Your task to perform on an android device: check android version Image 0: 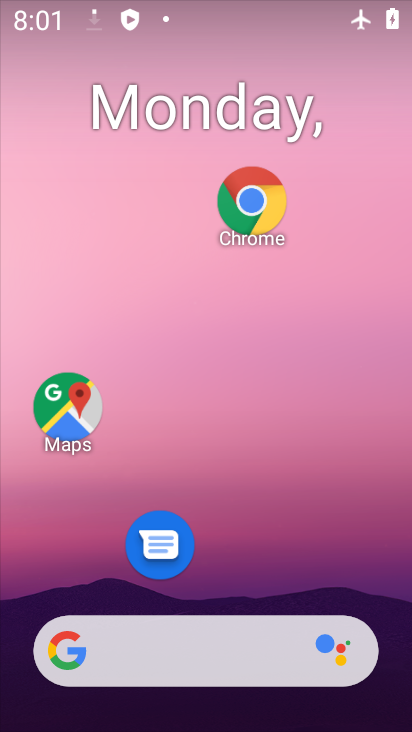
Step 0: drag from (267, 593) to (237, 101)
Your task to perform on an android device: check android version Image 1: 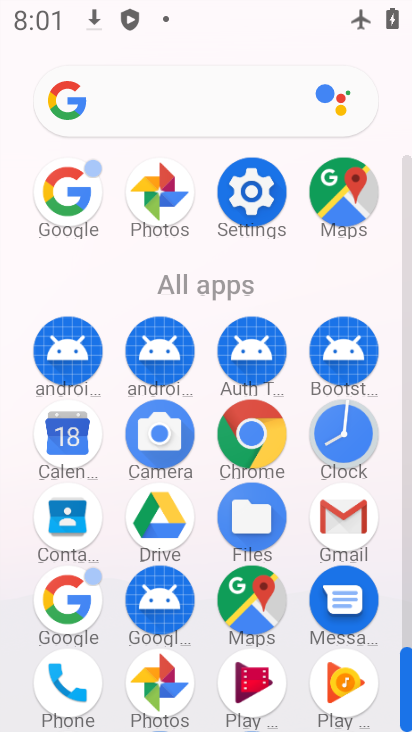
Step 1: drag from (290, 590) to (286, 134)
Your task to perform on an android device: check android version Image 2: 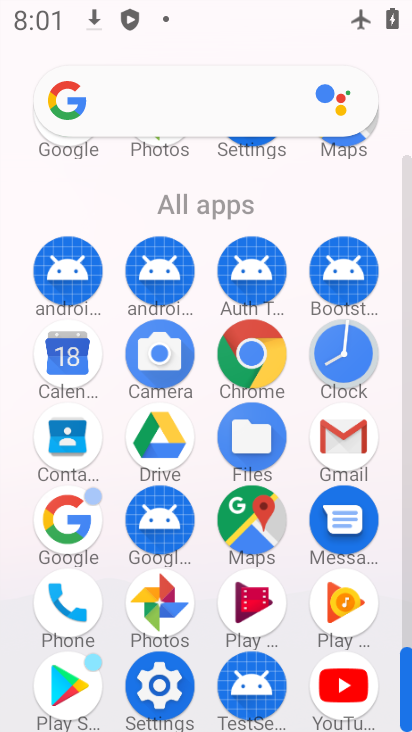
Step 2: drag from (288, 505) to (294, 158)
Your task to perform on an android device: check android version Image 3: 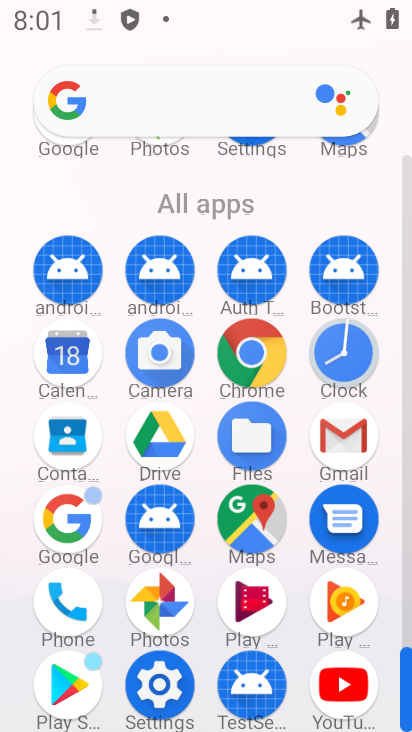
Step 3: click (166, 678)
Your task to perform on an android device: check android version Image 4: 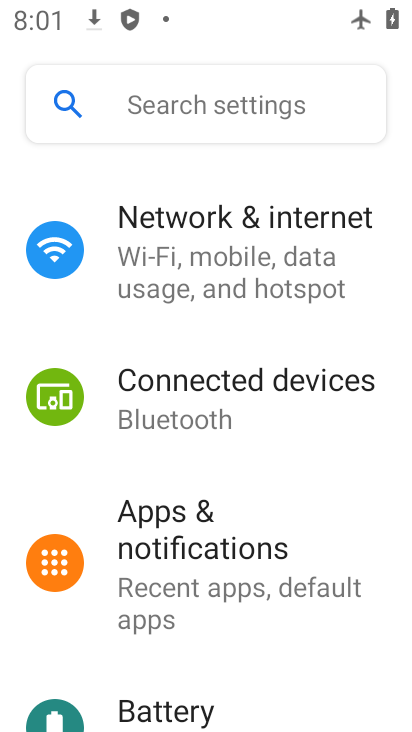
Step 4: drag from (312, 640) to (330, 250)
Your task to perform on an android device: check android version Image 5: 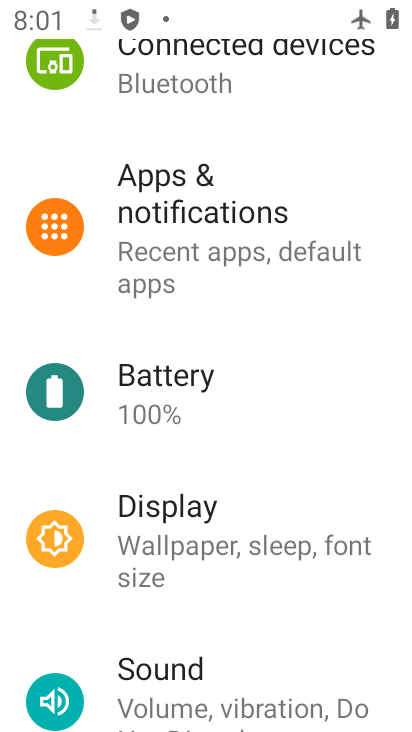
Step 5: drag from (291, 556) to (294, 261)
Your task to perform on an android device: check android version Image 6: 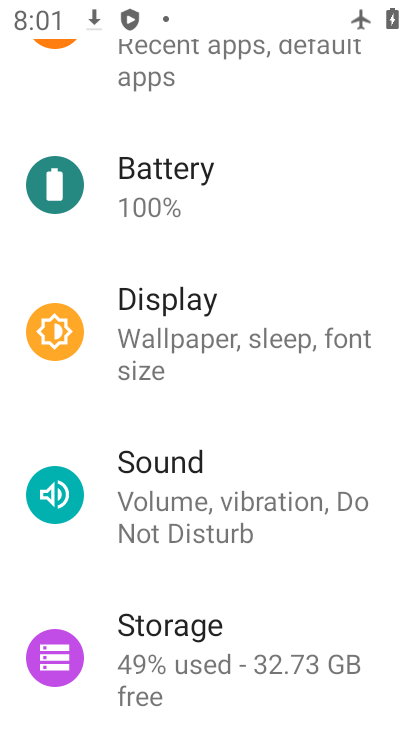
Step 6: drag from (265, 591) to (268, 266)
Your task to perform on an android device: check android version Image 7: 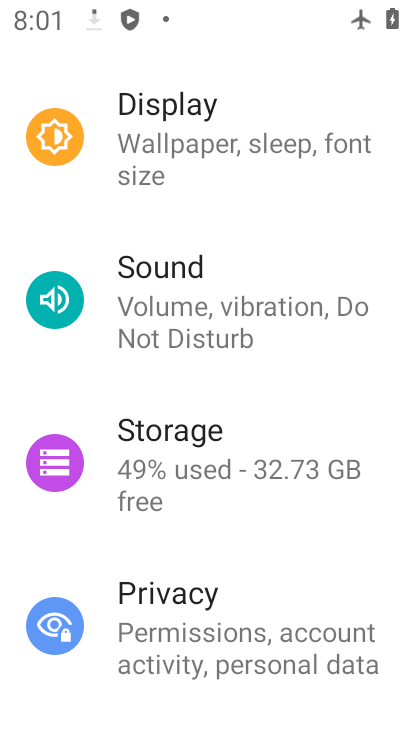
Step 7: drag from (276, 558) to (302, 186)
Your task to perform on an android device: check android version Image 8: 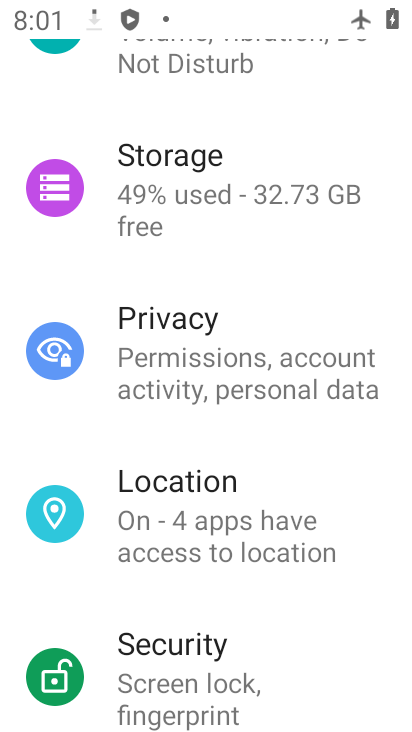
Step 8: drag from (249, 579) to (290, 256)
Your task to perform on an android device: check android version Image 9: 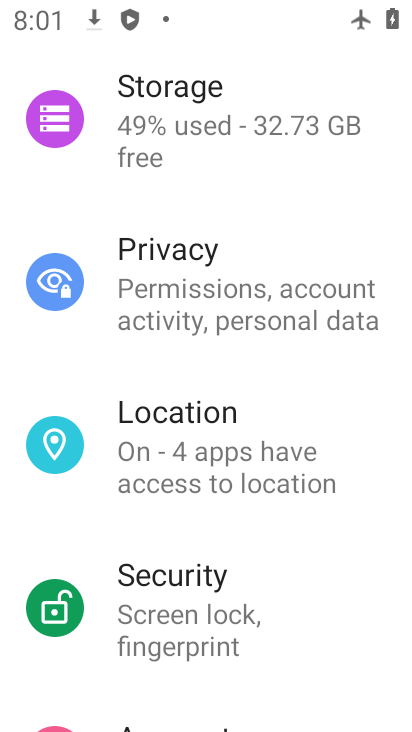
Step 9: drag from (309, 379) to (310, 243)
Your task to perform on an android device: check android version Image 10: 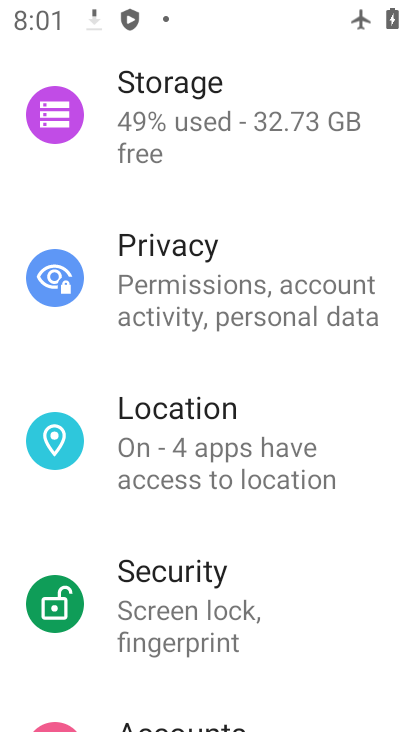
Step 10: drag from (302, 475) to (302, 268)
Your task to perform on an android device: check android version Image 11: 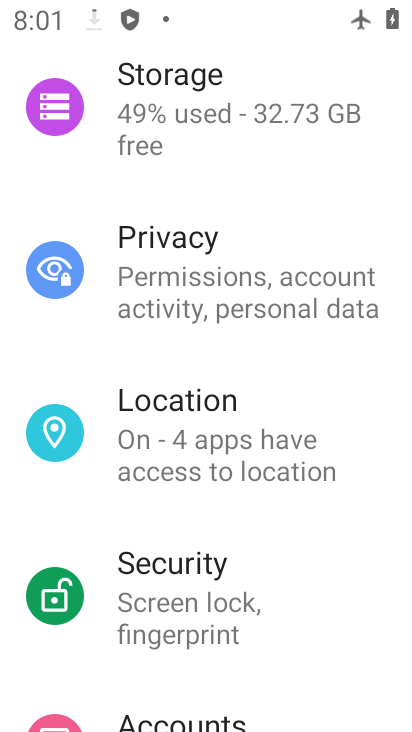
Step 11: drag from (214, 668) to (204, 172)
Your task to perform on an android device: check android version Image 12: 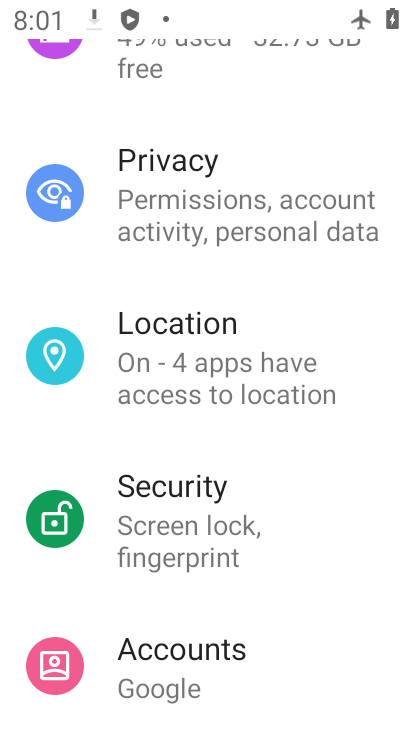
Step 12: drag from (235, 593) to (234, 206)
Your task to perform on an android device: check android version Image 13: 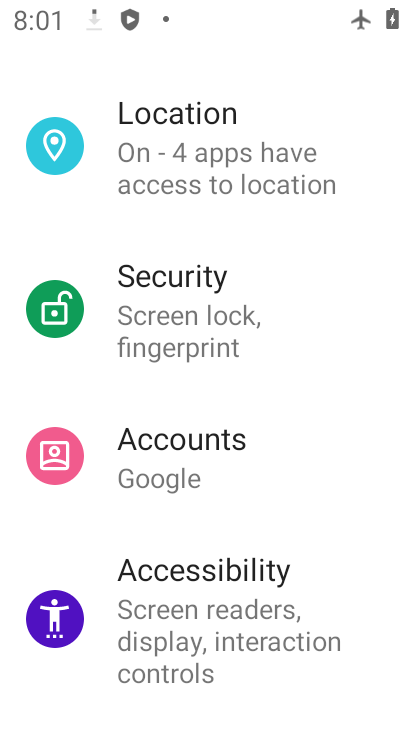
Step 13: drag from (275, 540) to (269, 182)
Your task to perform on an android device: check android version Image 14: 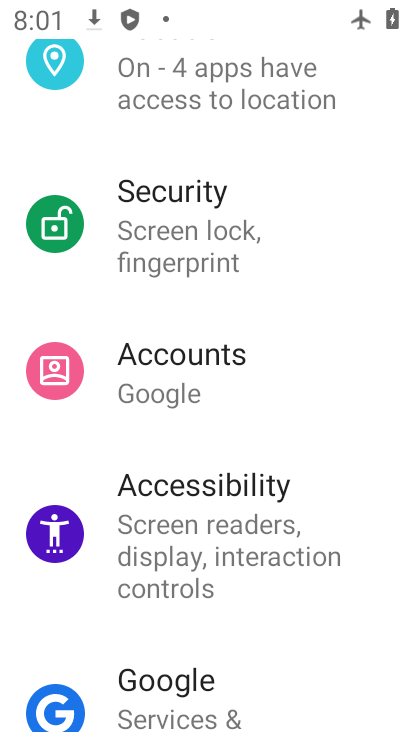
Step 14: drag from (275, 573) to (258, 218)
Your task to perform on an android device: check android version Image 15: 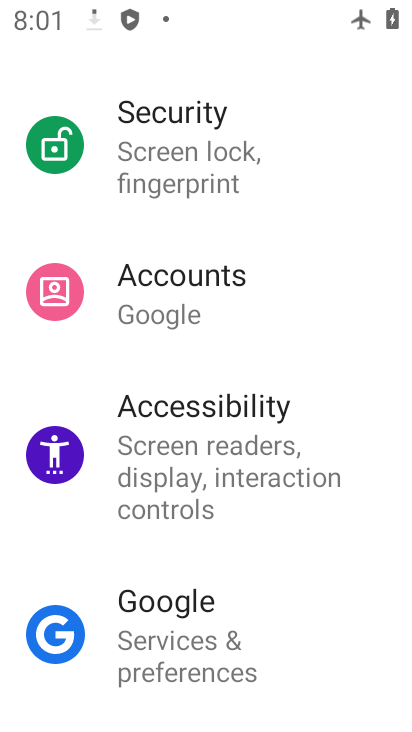
Step 15: drag from (251, 553) to (279, 250)
Your task to perform on an android device: check android version Image 16: 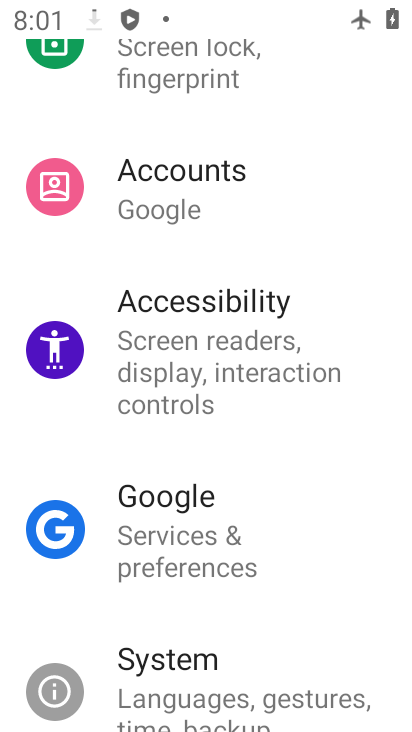
Step 16: drag from (253, 645) to (219, 243)
Your task to perform on an android device: check android version Image 17: 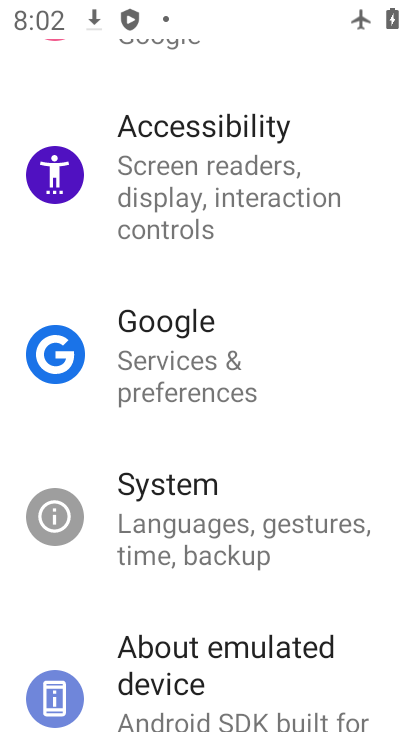
Step 17: drag from (232, 564) to (215, 215)
Your task to perform on an android device: check android version Image 18: 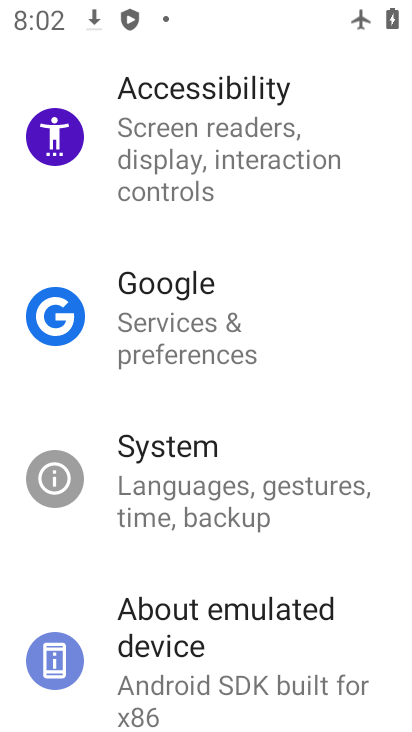
Step 18: click (215, 671)
Your task to perform on an android device: check android version Image 19: 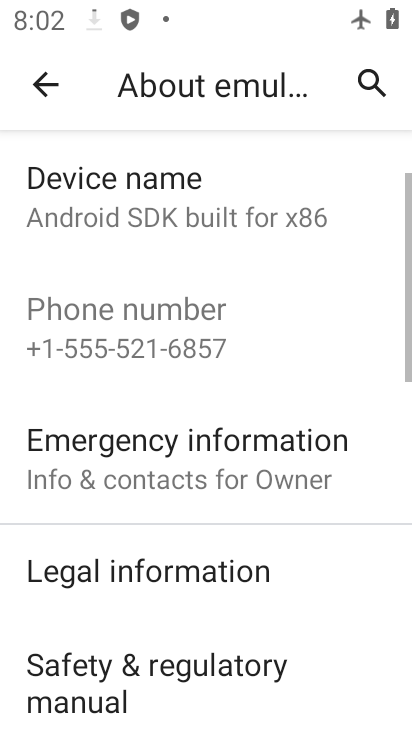
Step 19: drag from (254, 588) to (290, 279)
Your task to perform on an android device: check android version Image 20: 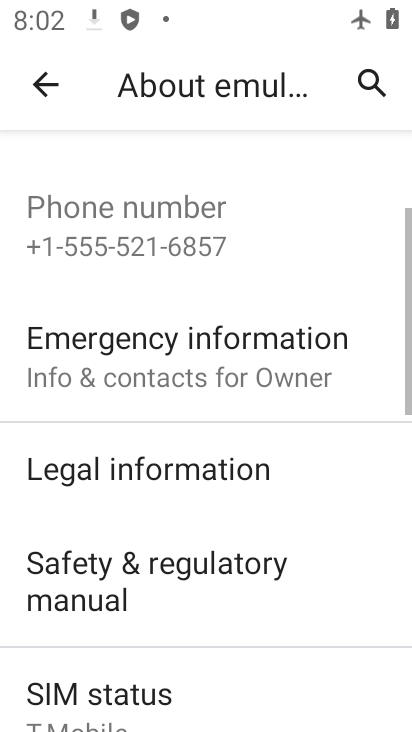
Step 20: drag from (267, 566) to (293, 297)
Your task to perform on an android device: check android version Image 21: 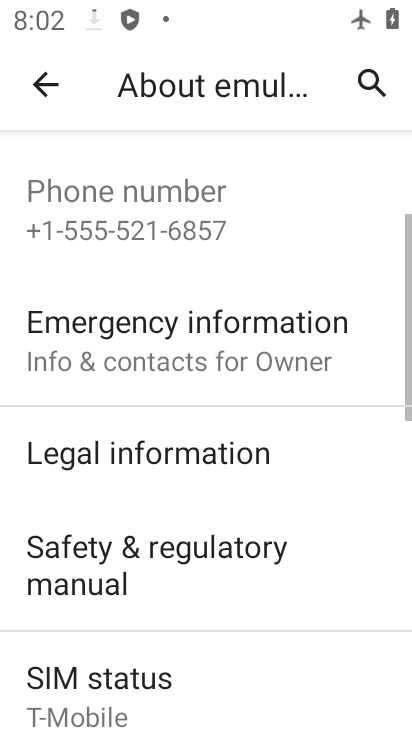
Step 21: drag from (267, 567) to (274, 185)
Your task to perform on an android device: check android version Image 22: 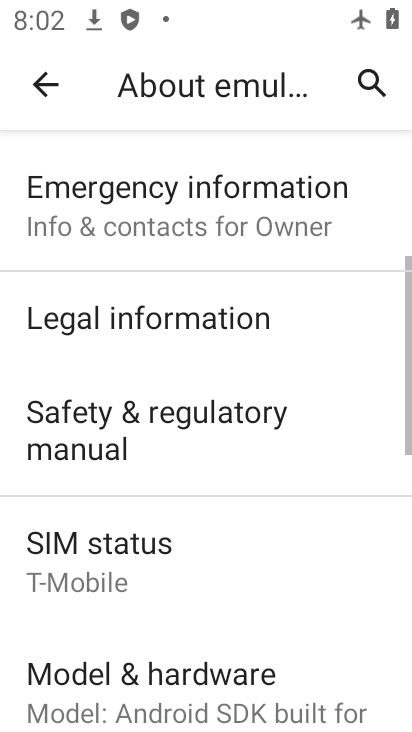
Step 22: drag from (234, 559) to (286, 269)
Your task to perform on an android device: check android version Image 23: 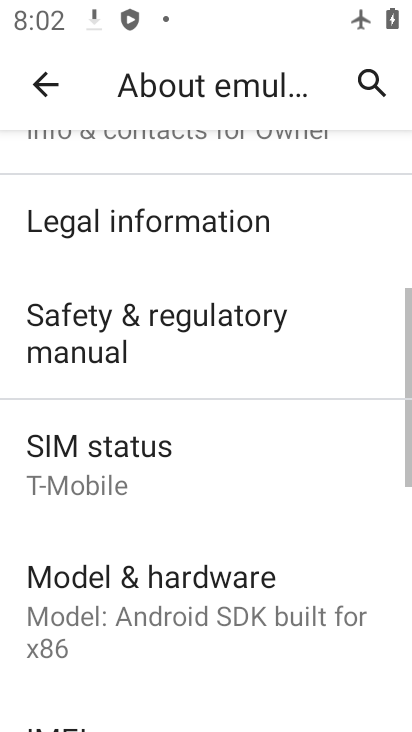
Step 23: drag from (274, 561) to (284, 293)
Your task to perform on an android device: check android version Image 24: 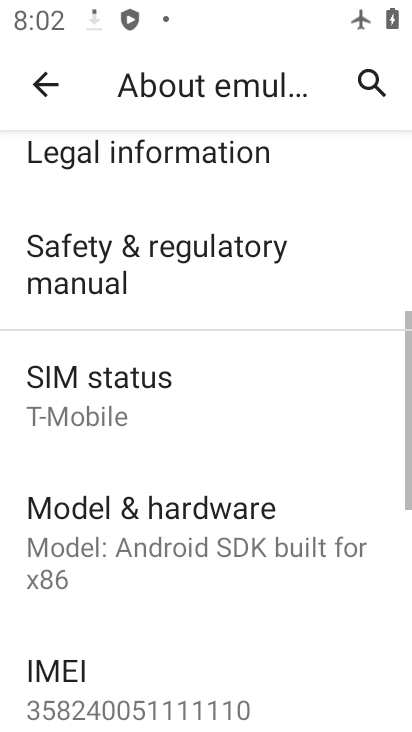
Step 24: drag from (282, 620) to (311, 318)
Your task to perform on an android device: check android version Image 25: 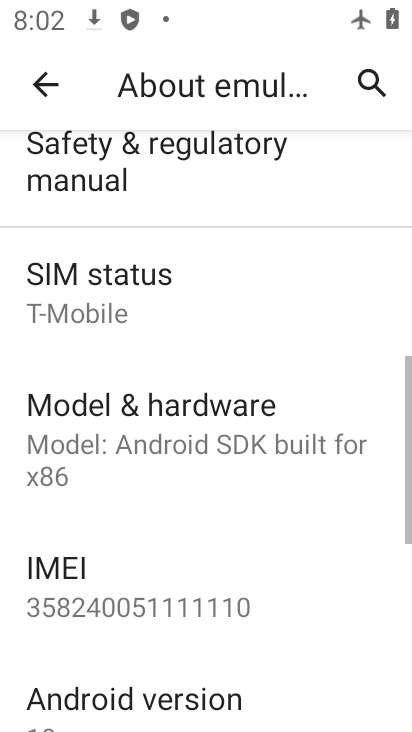
Step 25: drag from (275, 601) to (299, 345)
Your task to perform on an android device: check android version Image 26: 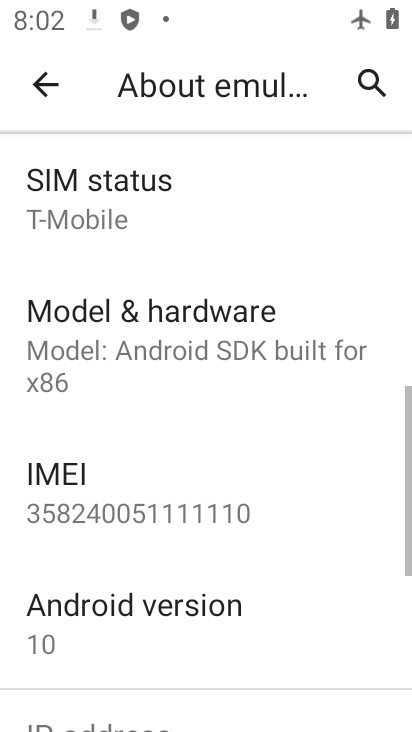
Step 26: click (191, 610)
Your task to perform on an android device: check android version Image 27: 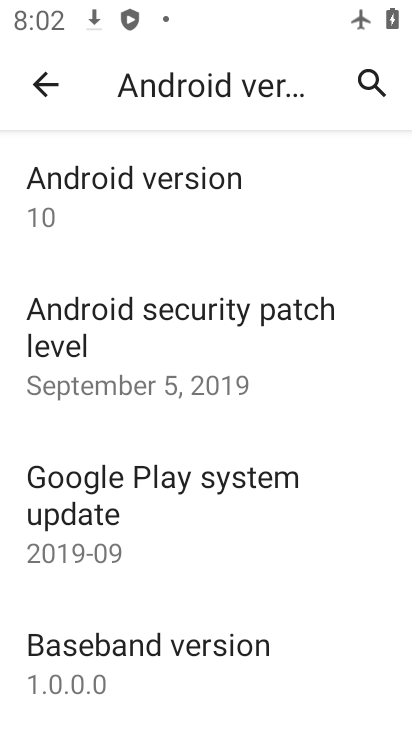
Step 27: click (198, 214)
Your task to perform on an android device: check android version Image 28: 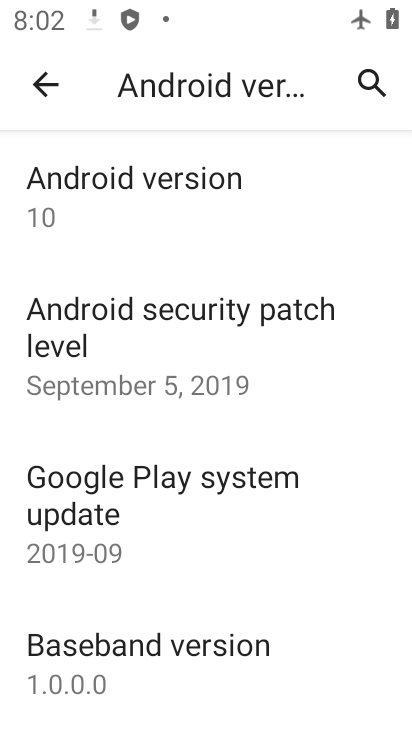
Step 28: click (198, 214)
Your task to perform on an android device: check android version Image 29: 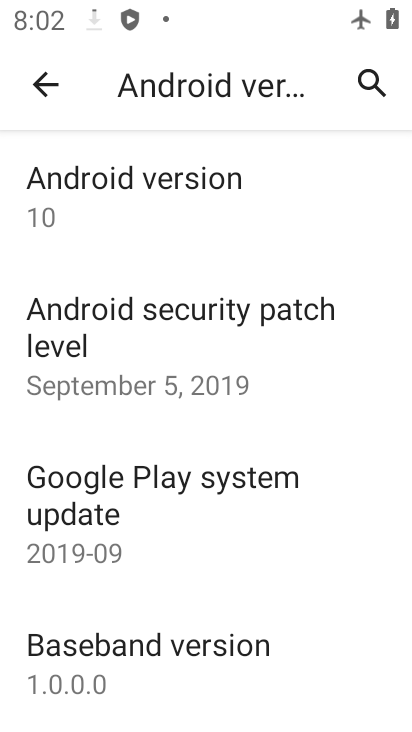
Step 29: task complete